Your task to perform on an android device: uninstall "Google Play Games" Image 0: 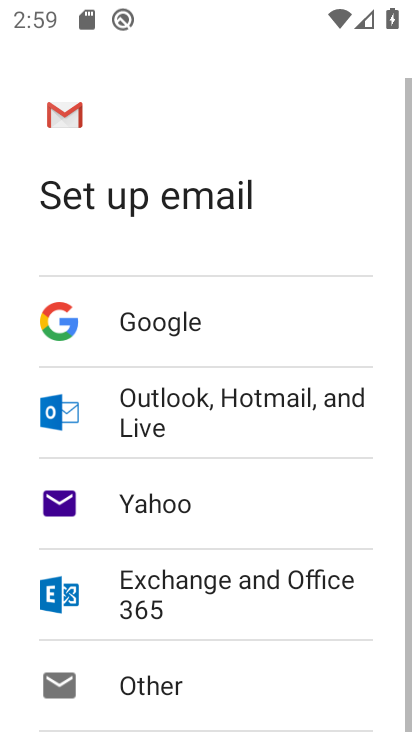
Step 0: press home button
Your task to perform on an android device: uninstall "Google Play Games" Image 1: 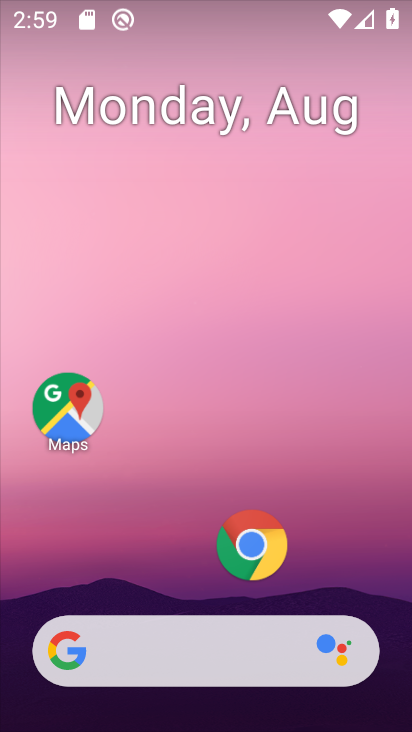
Step 1: drag from (151, 575) to (243, 15)
Your task to perform on an android device: uninstall "Google Play Games" Image 2: 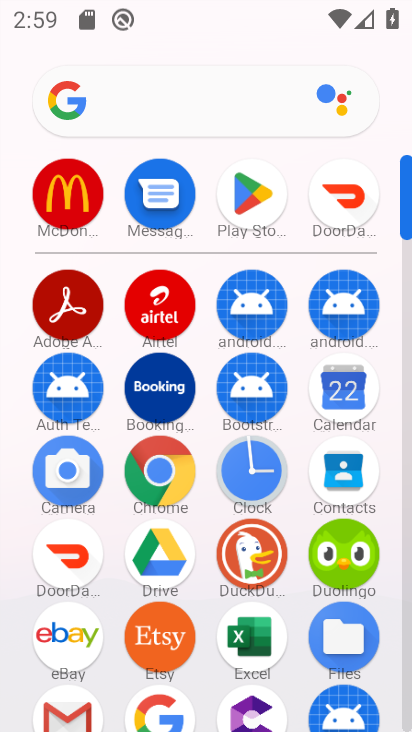
Step 2: click (257, 195)
Your task to perform on an android device: uninstall "Google Play Games" Image 3: 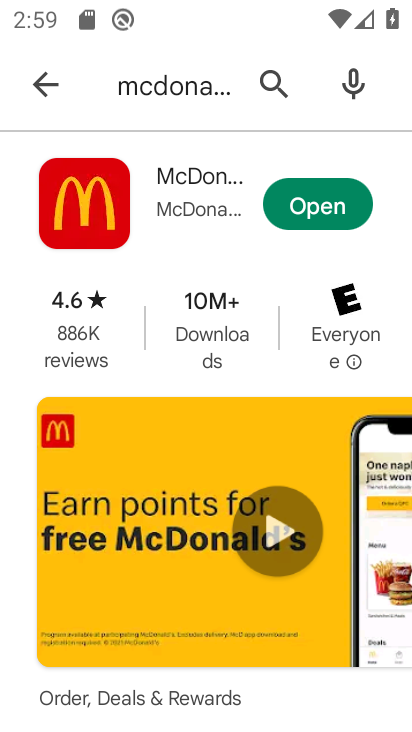
Step 3: click (270, 60)
Your task to perform on an android device: uninstall "Google Play Games" Image 4: 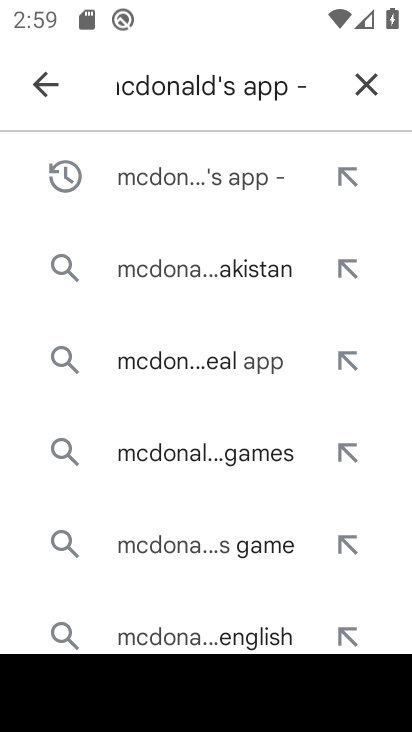
Step 4: click (355, 83)
Your task to perform on an android device: uninstall "Google Play Games" Image 5: 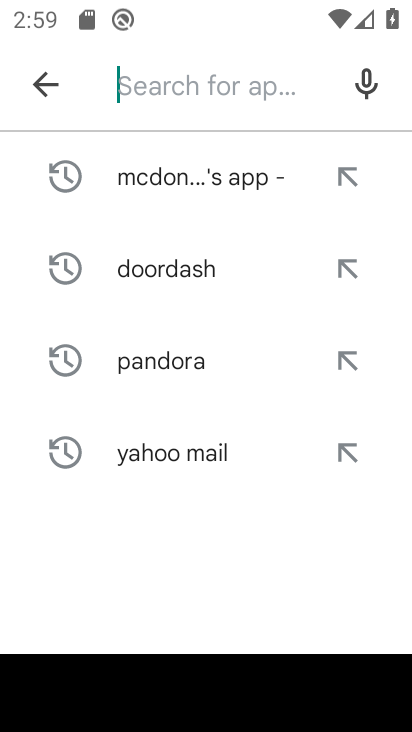
Step 5: click (165, 97)
Your task to perform on an android device: uninstall "Google Play Games" Image 6: 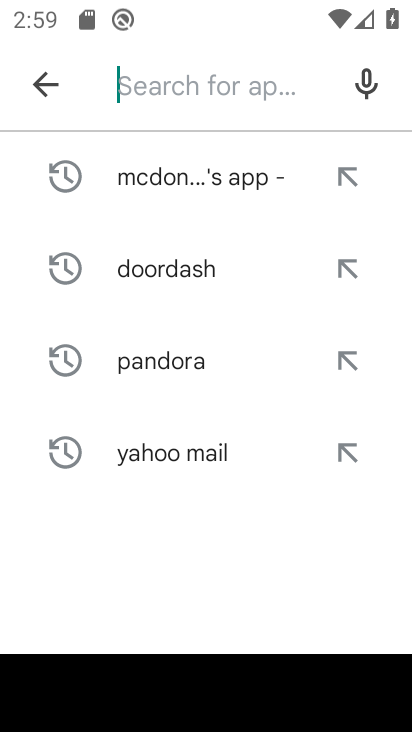
Step 6: click (136, 71)
Your task to perform on an android device: uninstall "Google Play Games" Image 7: 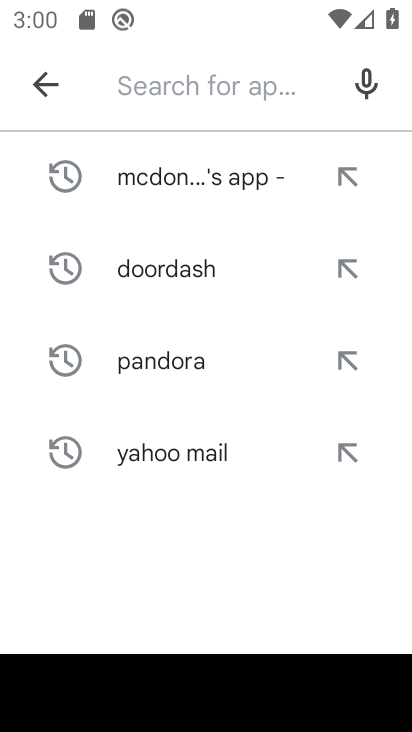
Step 7: type "Google Play Games"
Your task to perform on an android device: uninstall "Google Play Games" Image 8: 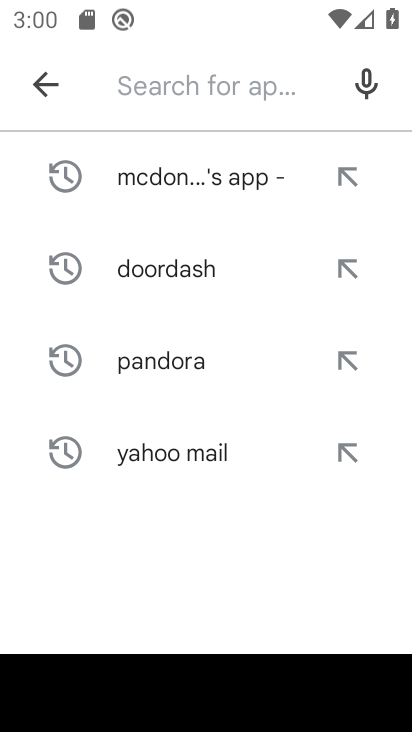
Step 8: click (200, 535)
Your task to perform on an android device: uninstall "Google Play Games" Image 9: 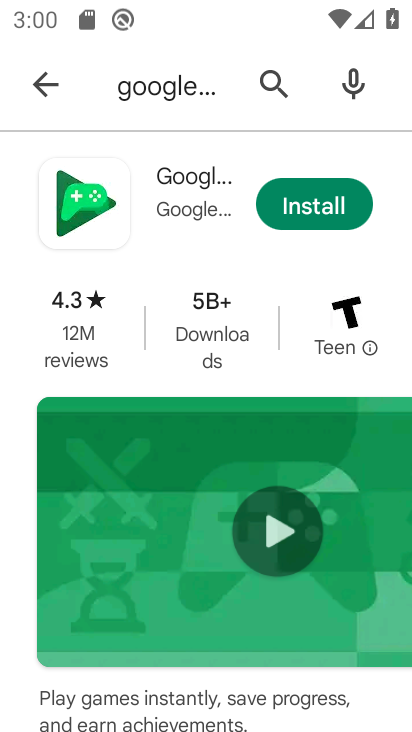
Step 9: task complete